Your task to perform on an android device: Open privacy settings Image 0: 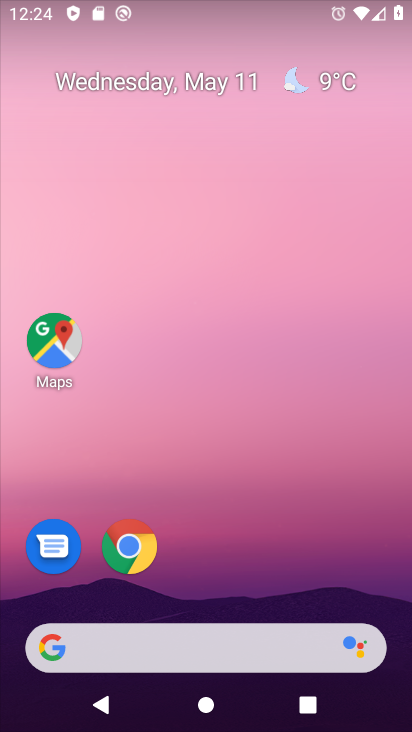
Step 0: drag from (278, 394) to (289, 205)
Your task to perform on an android device: Open privacy settings Image 1: 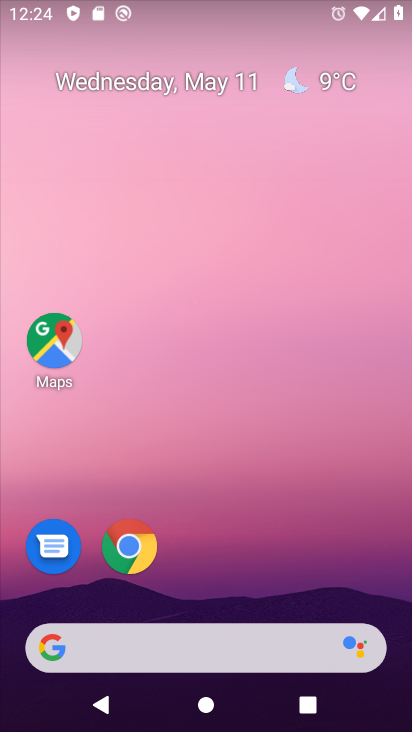
Step 1: drag from (187, 595) to (314, 198)
Your task to perform on an android device: Open privacy settings Image 2: 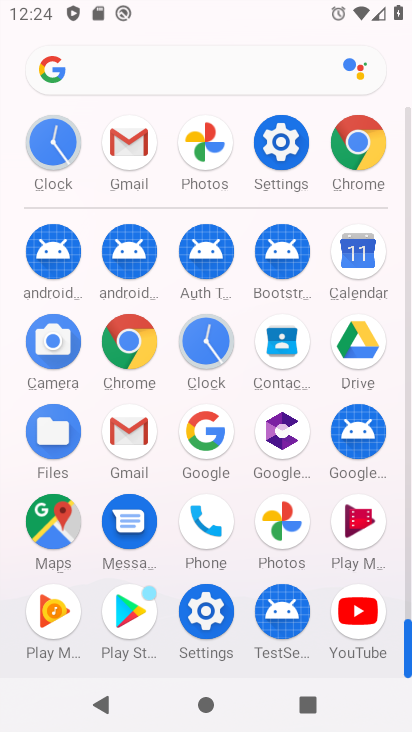
Step 2: click (202, 606)
Your task to perform on an android device: Open privacy settings Image 3: 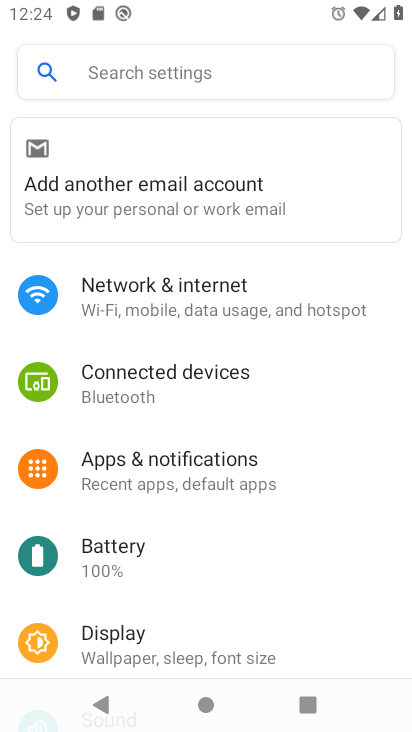
Step 3: drag from (185, 602) to (204, 533)
Your task to perform on an android device: Open privacy settings Image 4: 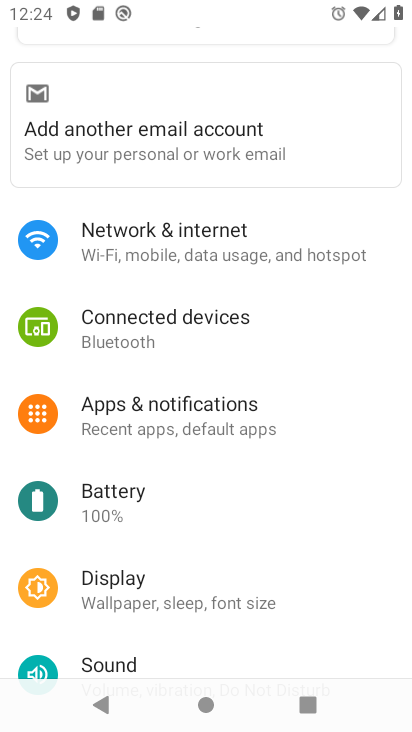
Step 4: drag from (185, 627) to (272, 290)
Your task to perform on an android device: Open privacy settings Image 5: 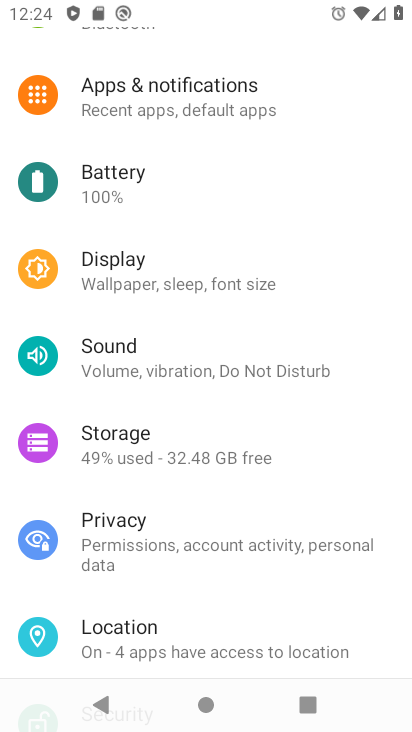
Step 5: click (167, 559)
Your task to perform on an android device: Open privacy settings Image 6: 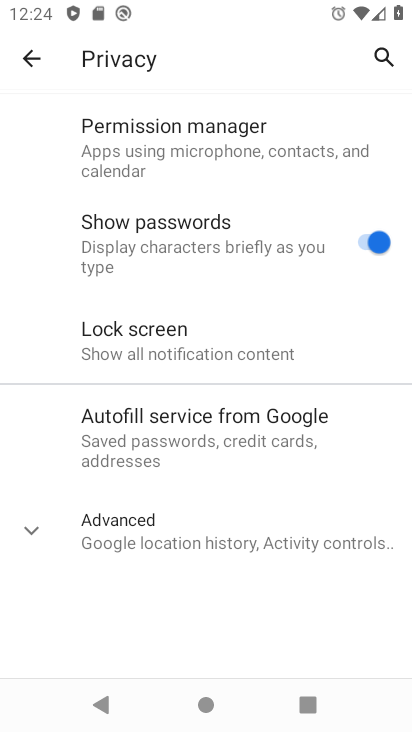
Step 6: task complete